Your task to perform on an android device: Open the calendar and show me this week's events? Image 0: 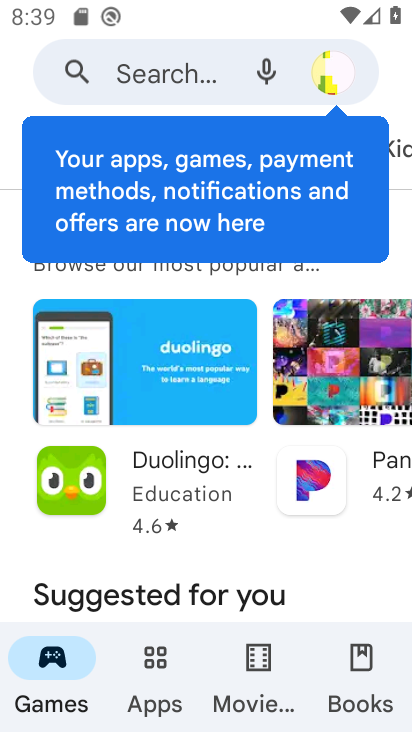
Step 0: press home button
Your task to perform on an android device: Open the calendar and show me this week's events? Image 1: 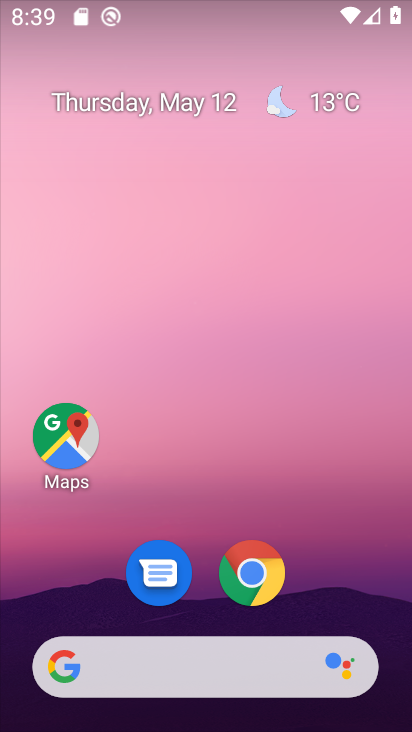
Step 1: drag from (76, 602) to (215, 99)
Your task to perform on an android device: Open the calendar and show me this week's events? Image 2: 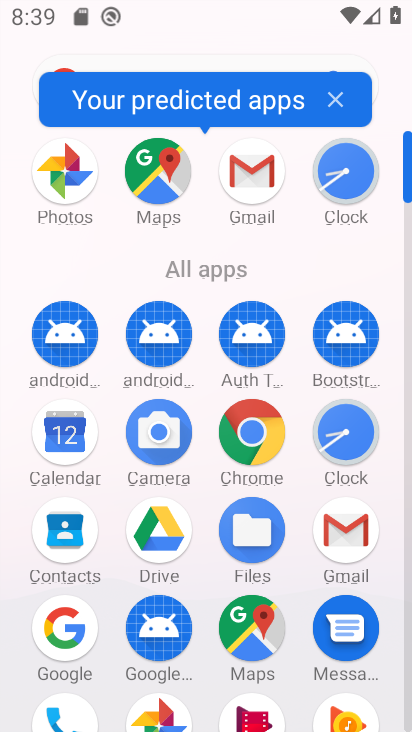
Step 2: click (71, 438)
Your task to perform on an android device: Open the calendar and show me this week's events? Image 3: 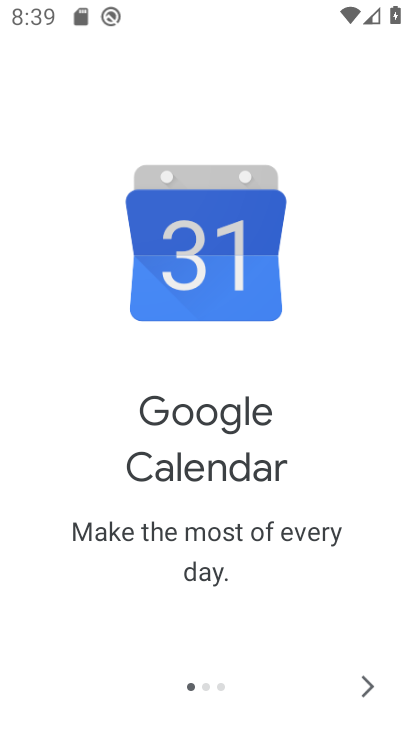
Step 3: click (390, 683)
Your task to perform on an android device: Open the calendar and show me this week's events? Image 4: 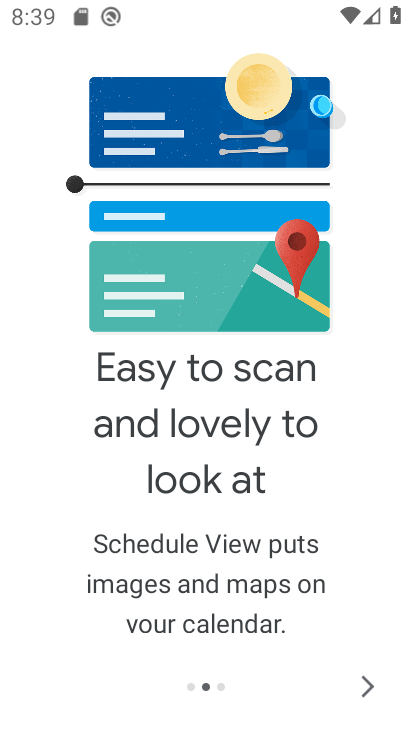
Step 4: click (388, 683)
Your task to perform on an android device: Open the calendar and show me this week's events? Image 5: 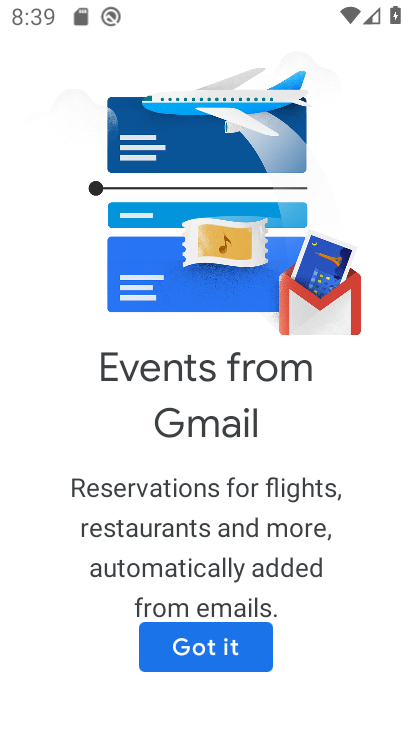
Step 5: click (256, 646)
Your task to perform on an android device: Open the calendar and show me this week's events? Image 6: 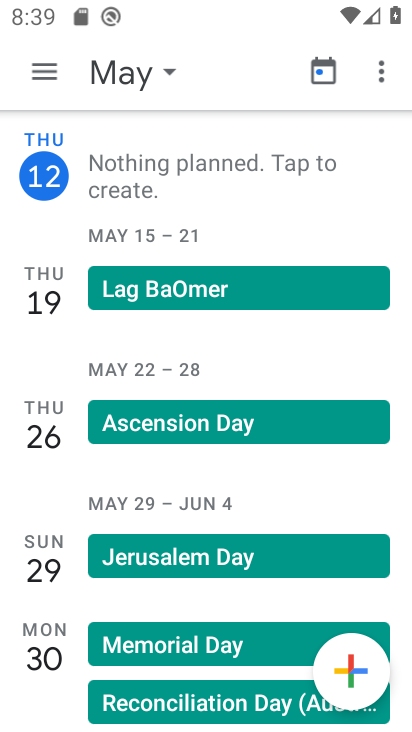
Step 6: click (49, 74)
Your task to perform on an android device: Open the calendar and show me this week's events? Image 7: 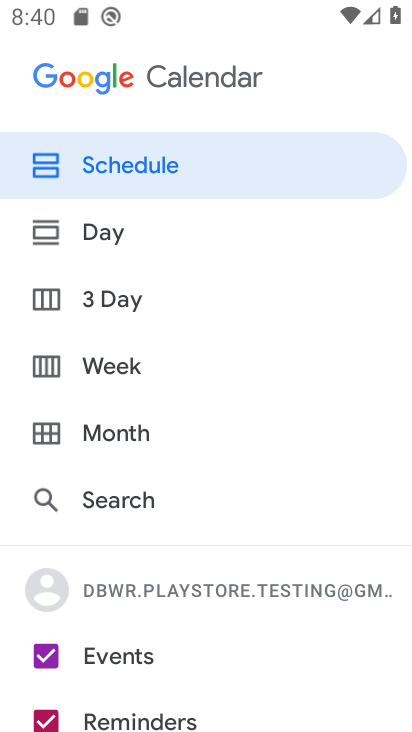
Step 7: click (129, 366)
Your task to perform on an android device: Open the calendar and show me this week's events? Image 8: 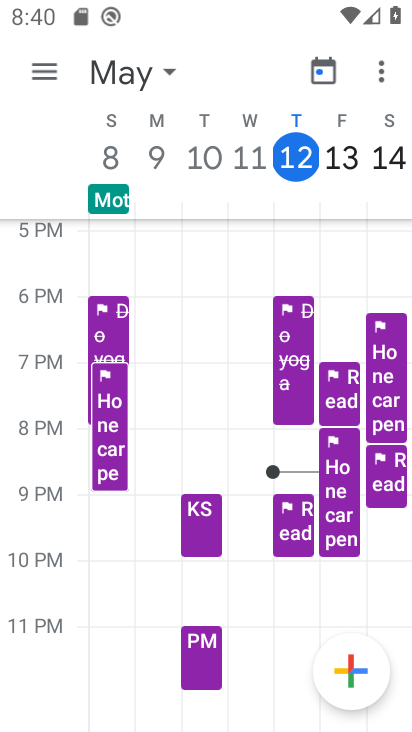
Step 8: task complete